Your task to perform on an android device: toggle javascript in the chrome app Image 0: 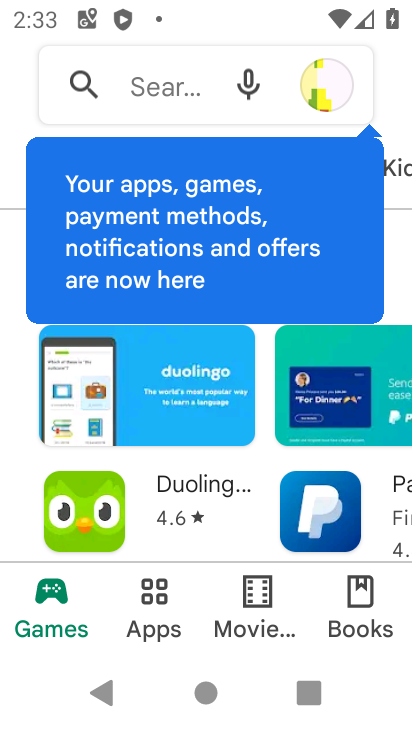
Step 0: press home button
Your task to perform on an android device: toggle javascript in the chrome app Image 1: 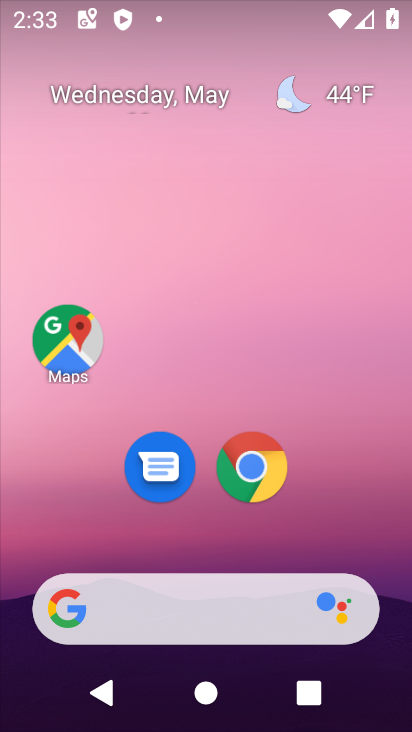
Step 1: drag from (360, 669) to (195, 131)
Your task to perform on an android device: toggle javascript in the chrome app Image 2: 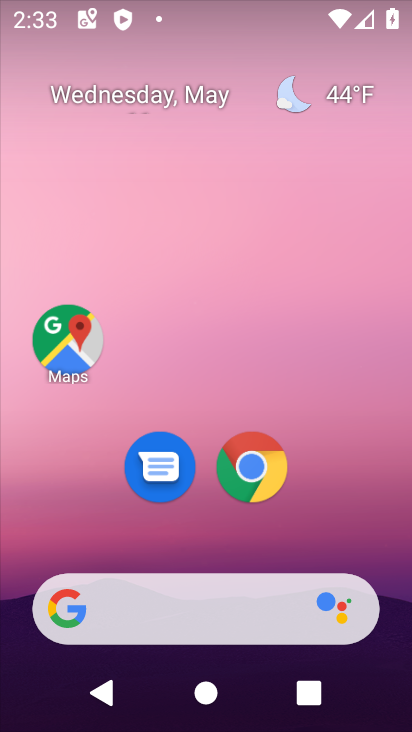
Step 2: drag from (353, 561) to (159, 27)
Your task to perform on an android device: toggle javascript in the chrome app Image 3: 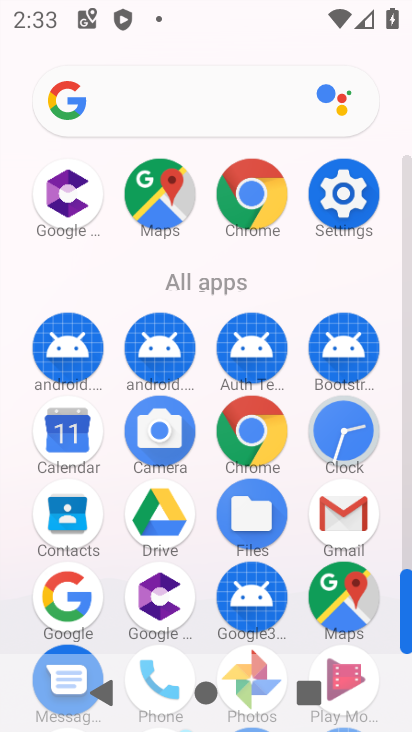
Step 3: click (254, 420)
Your task to perform on an android device: toggle javascript in the chrome app Image 4: 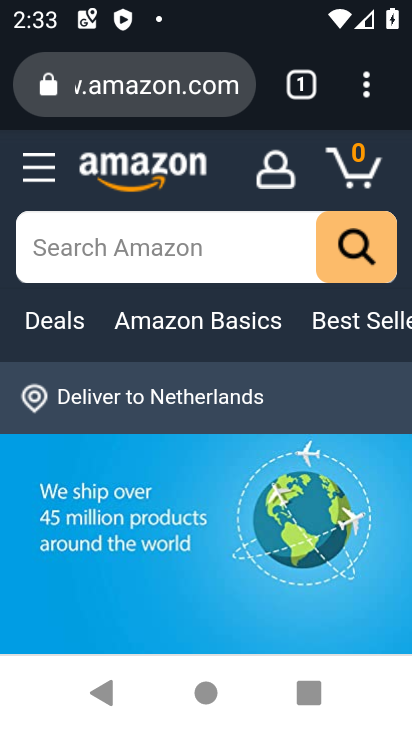
Step 4: click (365, 97)
Your task to perform on an android device: toggle javascript in the chrome app Image 5: 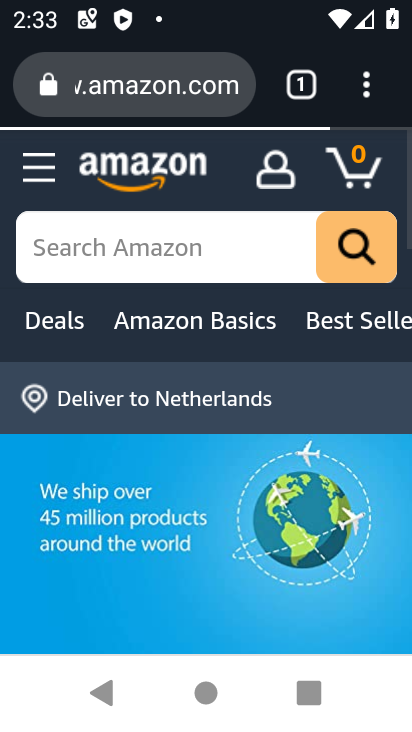
Step 5: drag from (362, 92) to (98, 509)
Your task to perform on an android device: toggle javascript in the chrome app Image 6: 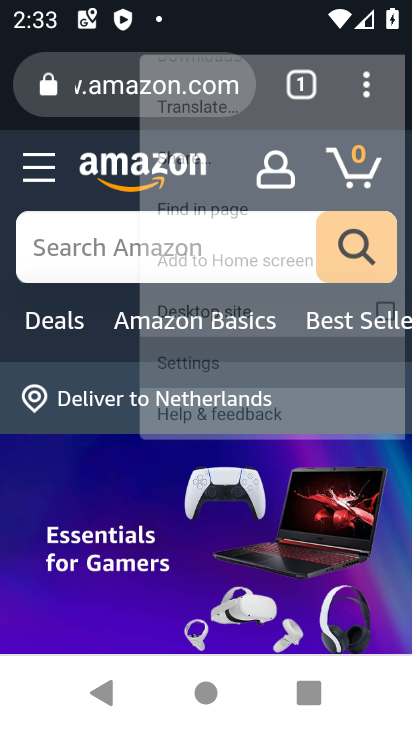
Step 6: click (100, 510)
Your task to perform on an android device: toggle javascript in the chrome app Image 7: 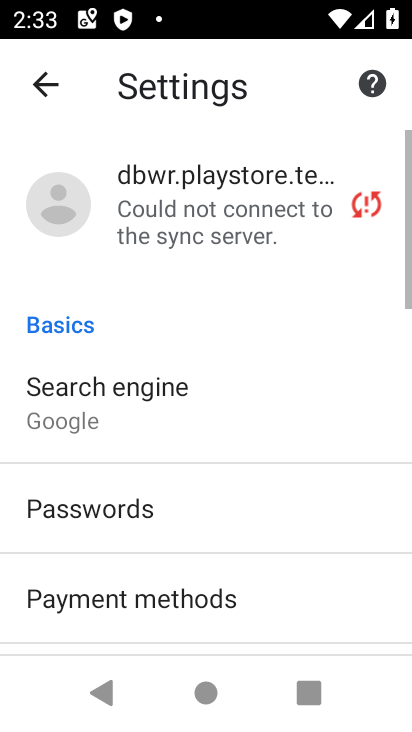
Step 7: drag from (143, 551) to (67, 104)
Your task to perform on an android device: toggle javascript in the chrome app Image 8: 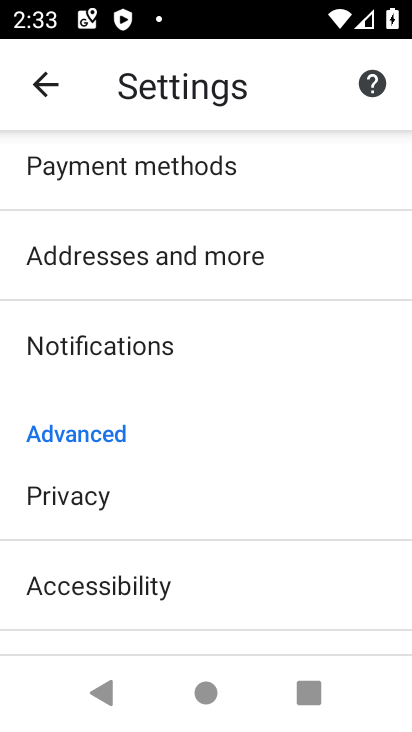
Step 8: drag from (138, 516) to (80, 118)
Your task to perform on an android device: toggle javascript in the chrome app Image 9: 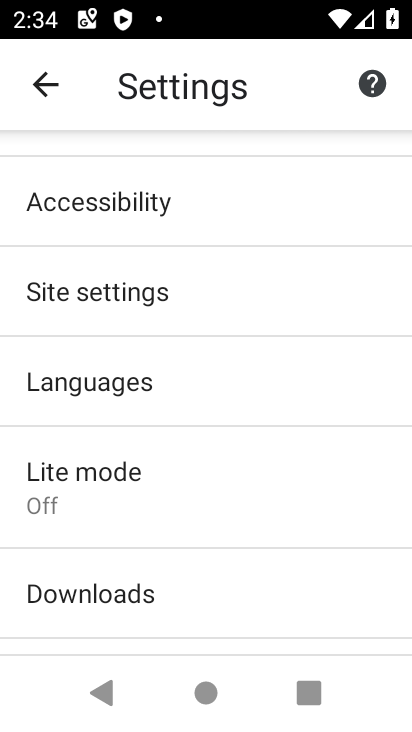
Step 9: click (80, 287)
Your task to perform on an android device: toggle javascript in the chrome app Image 10: 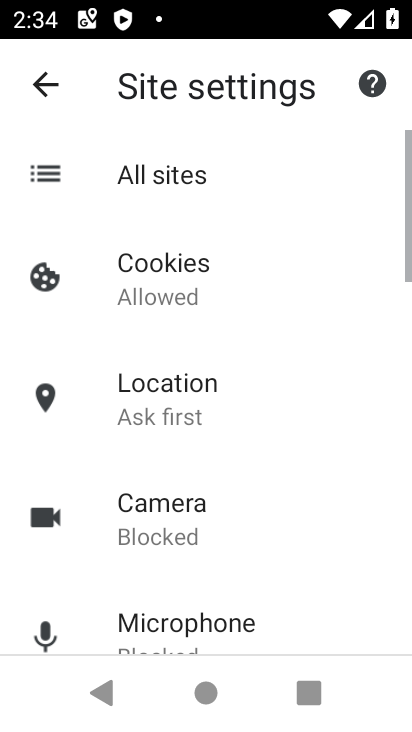
Step 10: drag from (243, 510) to (239, 132)
Your task to perform on an android device: toggle javascript in the chrome app Image 11: 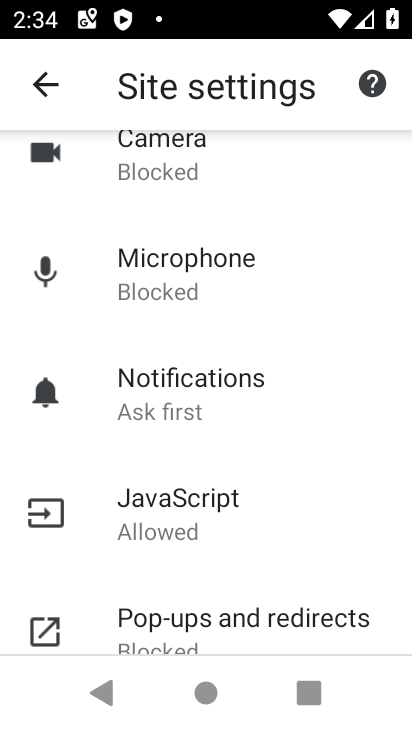
Step 11: click (162, 527)
Your task to perform on an android device: toggle javascript in the chrome app Image 12: 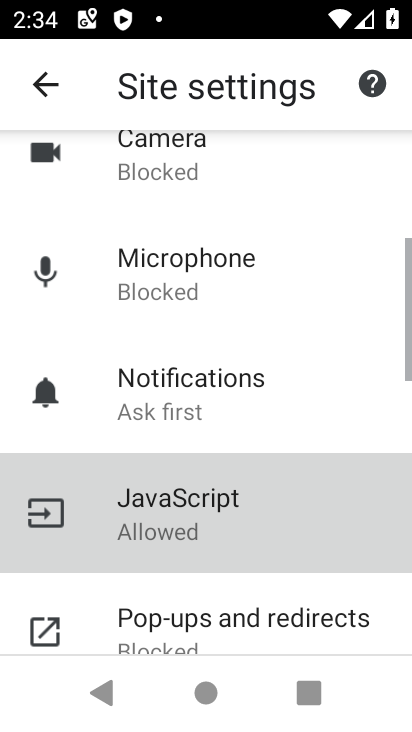
Step 12: click (157, 522)
Your task to perform on an android device: toggle javascript in the chrome app Image 13: 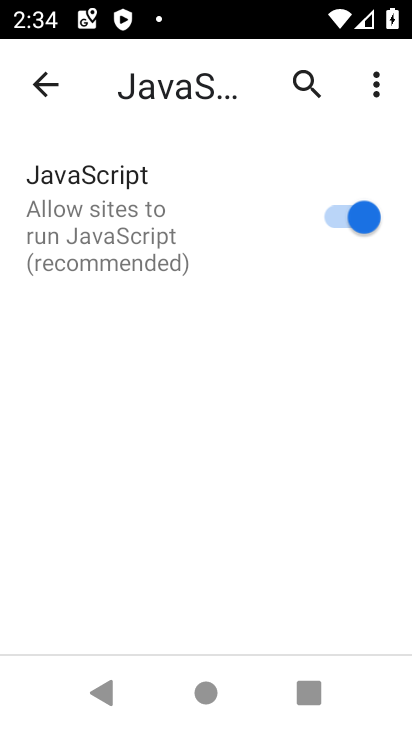
Step 13: click (357, 211)
Your task to perform on an android device: toggle javascript in the chrome app Image 14: 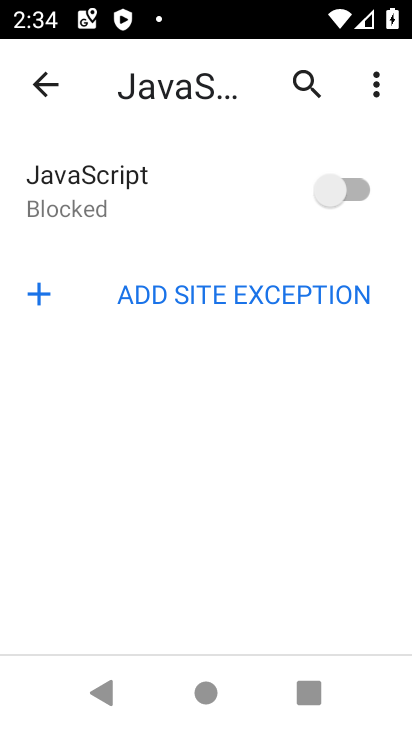
Step 14: task complete